Your task to perform on an android device: set the stopwatch Image 0: 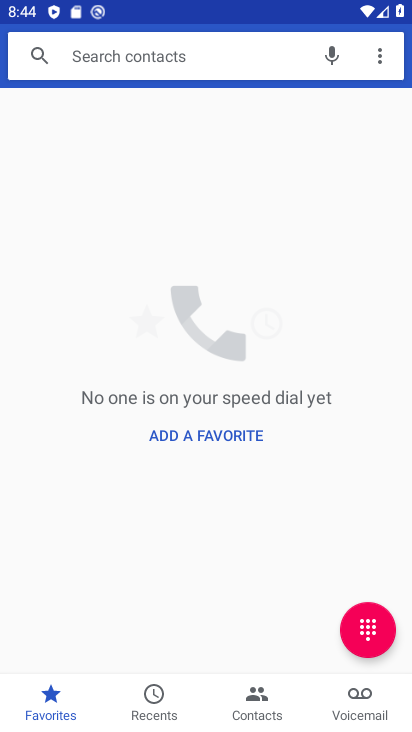
Step 0: press home button
Your task to perform on an android device: set the stopwatch Image 1: 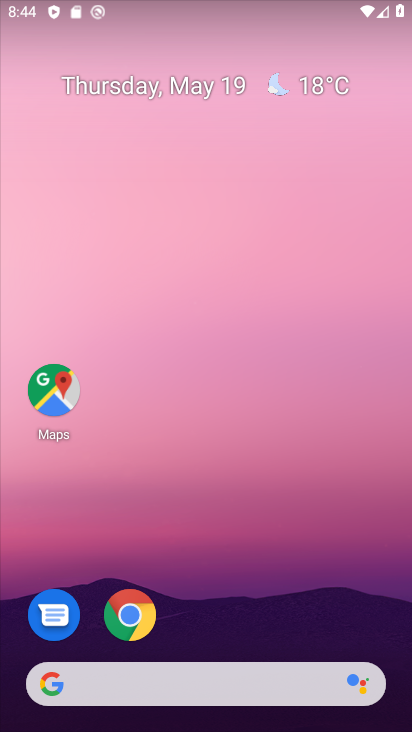
Step 1: drag from (403, 637) to (391, 118)
Your task to perform on an android device: set the stopwatch Image 2: 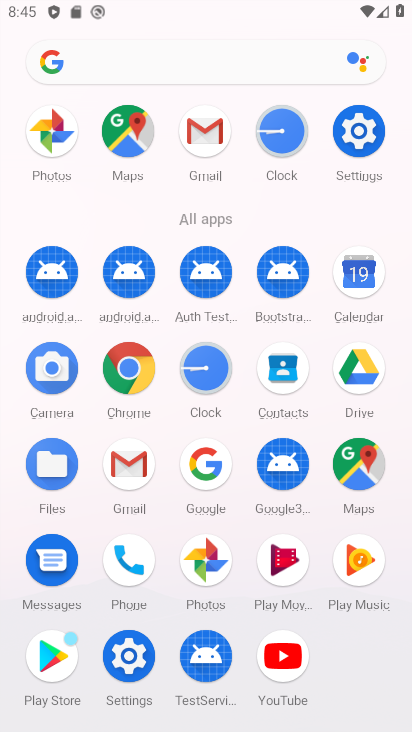
Step 2: click (283, 126)
Your task to perform on an android device: set the stopwatch Image 3: 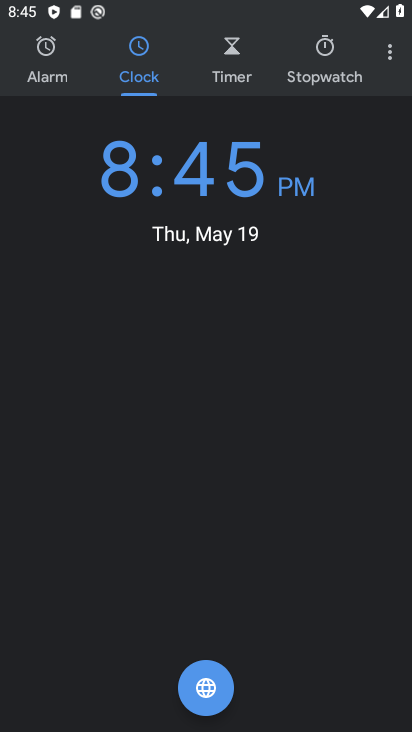
Step 3: click (323, 49)
Your task to perform on an android device: set the stopwatch Image 4: 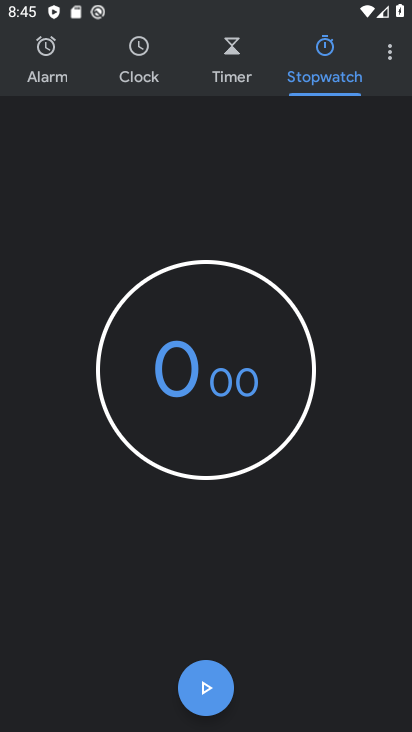
Step 4: click (202, 695)
Your task to perform on an android device: set the stopwatch Image 5: 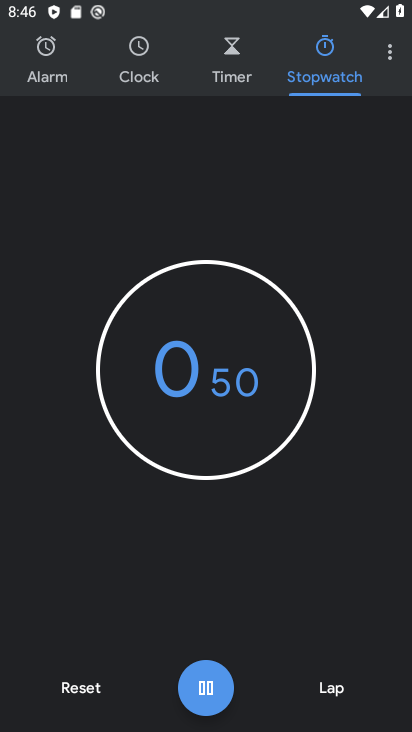
Step 5: task complete